Your task to perform on an android device: What's the weather going to be this weekend? Image 0: 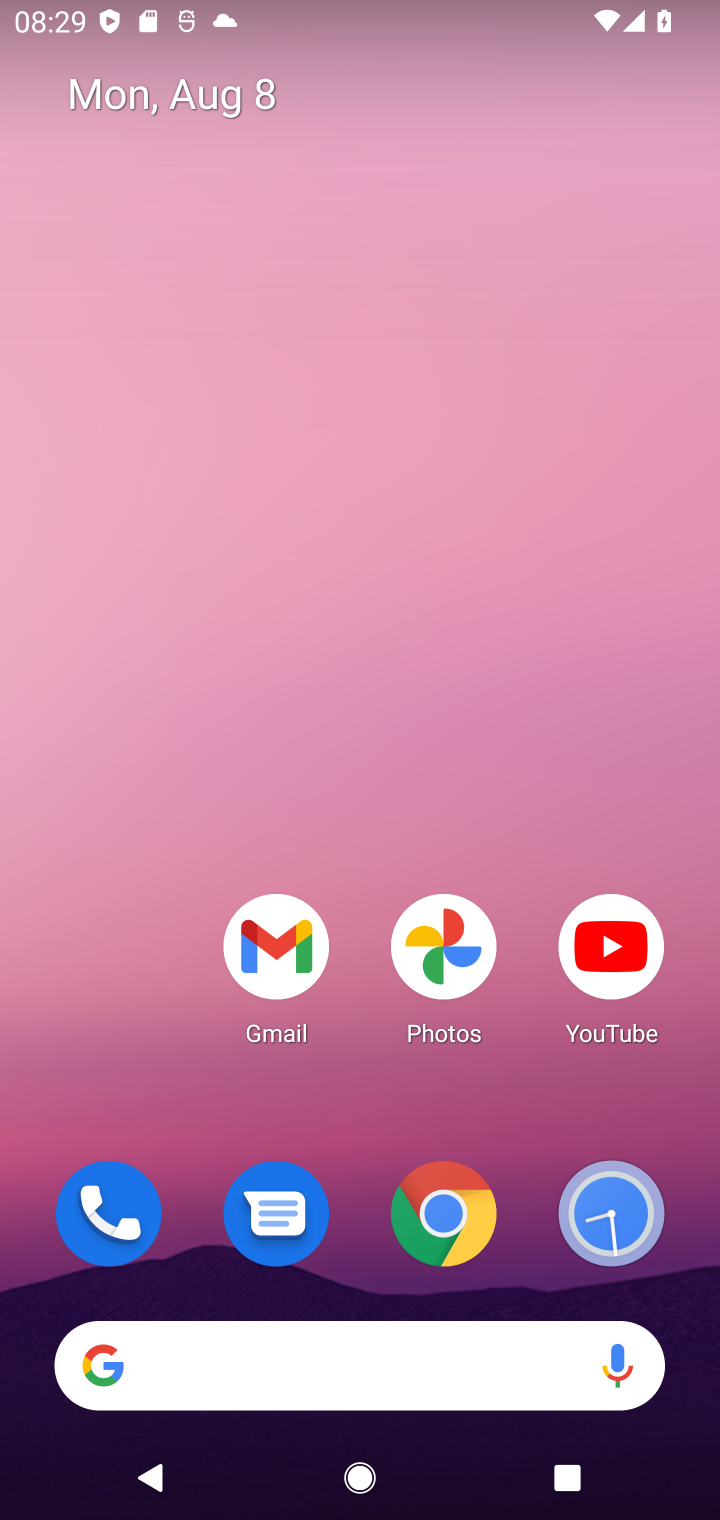
Step 0: drag from (318, 988) to (244, 265)
Your task to perform on an android device: What's the weather going to be this weekend? Image 1: 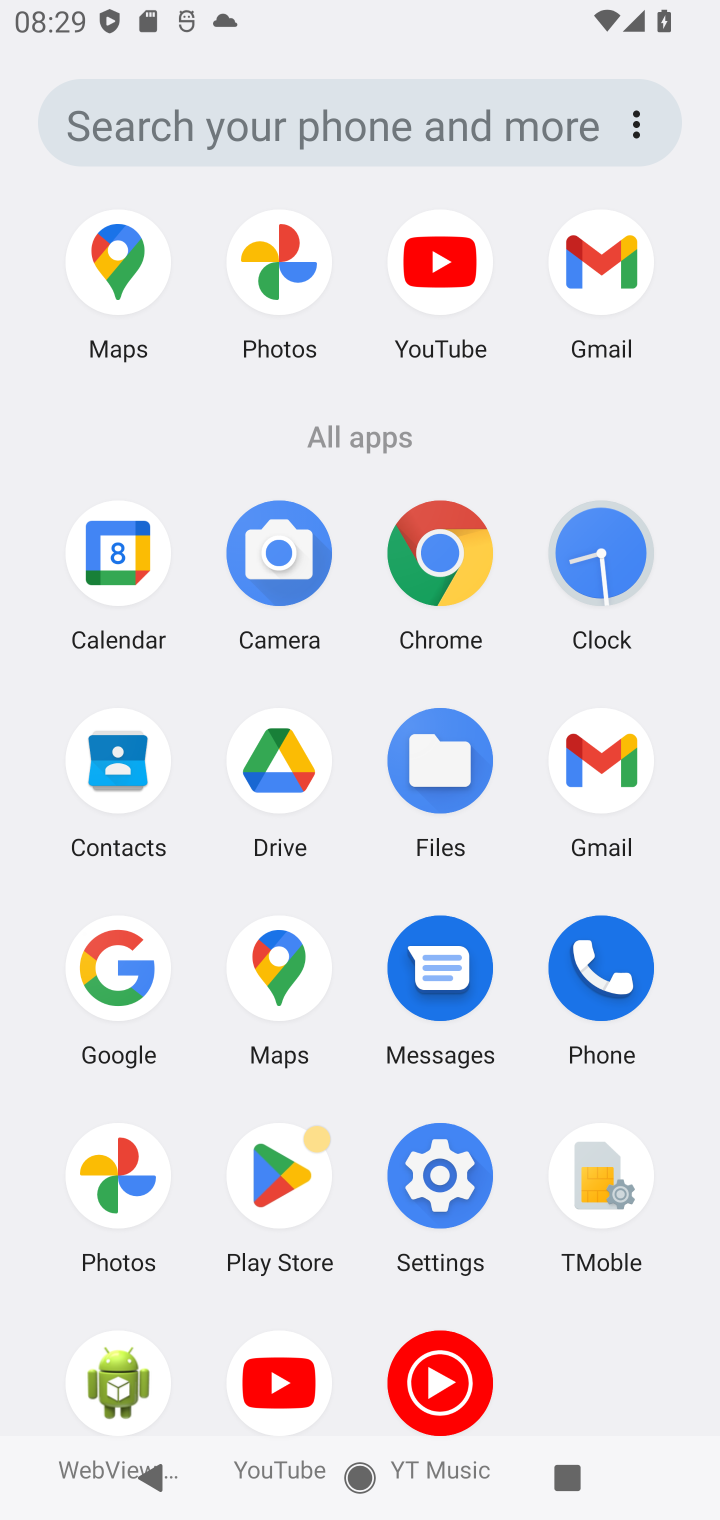
Step 1: click (464, 596)
Your task to perform on an android device: What's the weather going to be this weekend? Image 2: 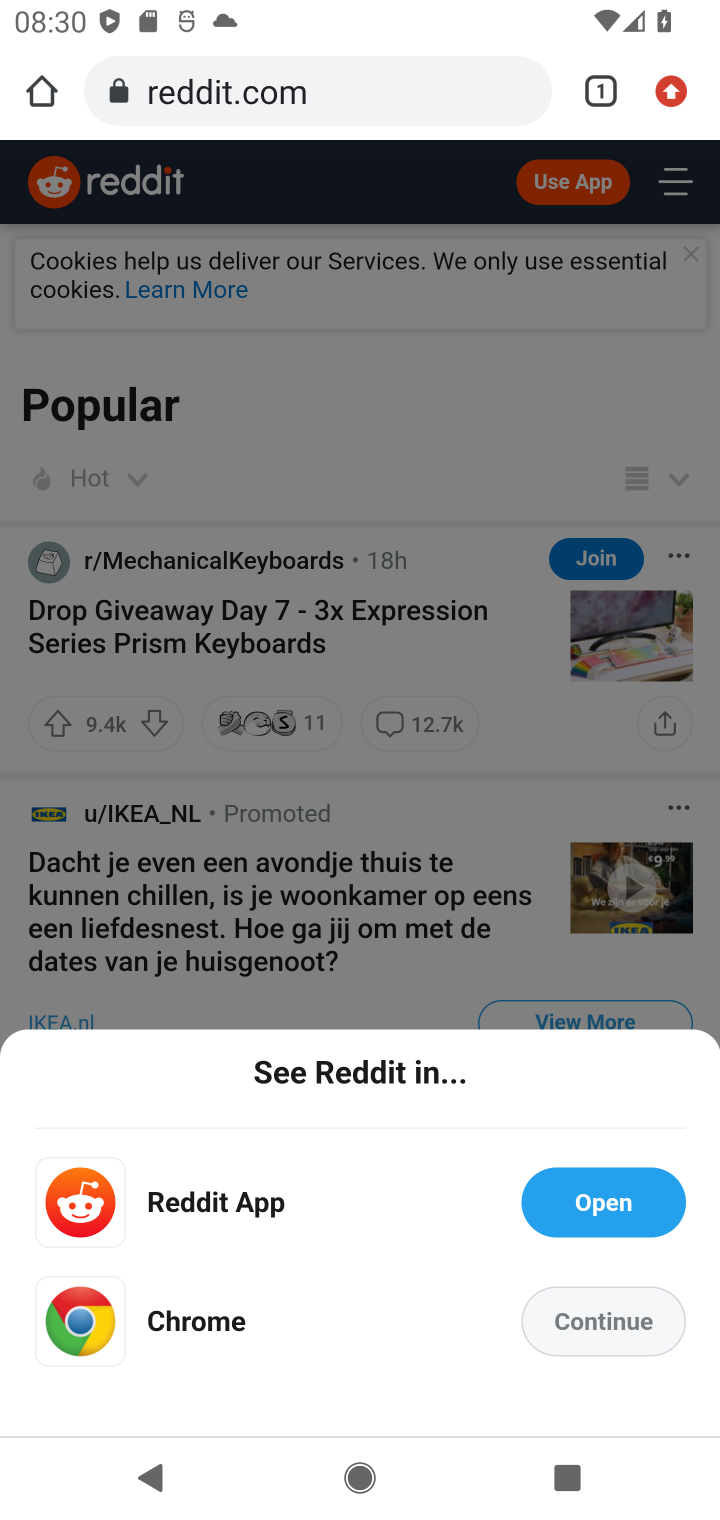
Step 2: click (454, 583)
Your task to perform on an android device: What's the weather going to be this weekend? Image 3: 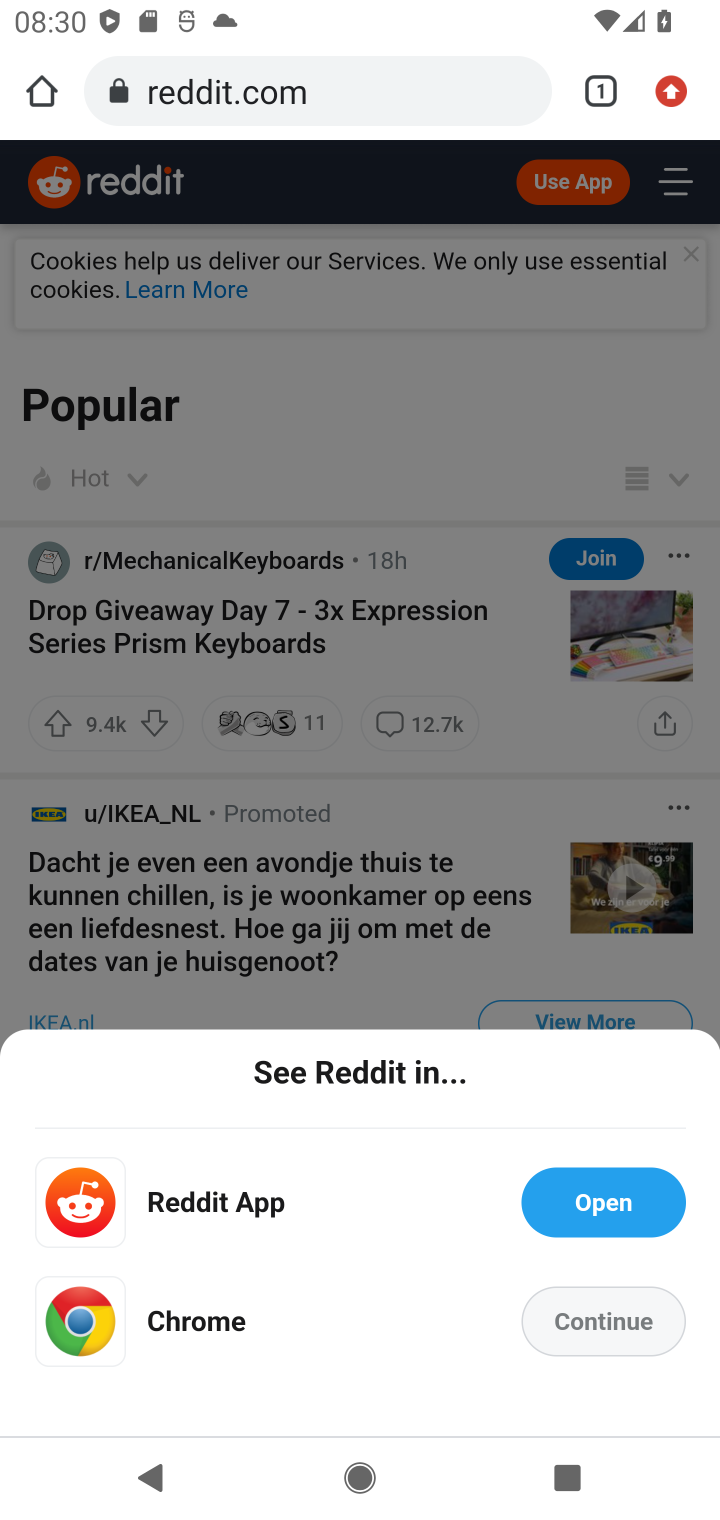
Step 3: click (605, 95)
Your task to perform on an android device: What's the weather going to be this weekend? Image 4: 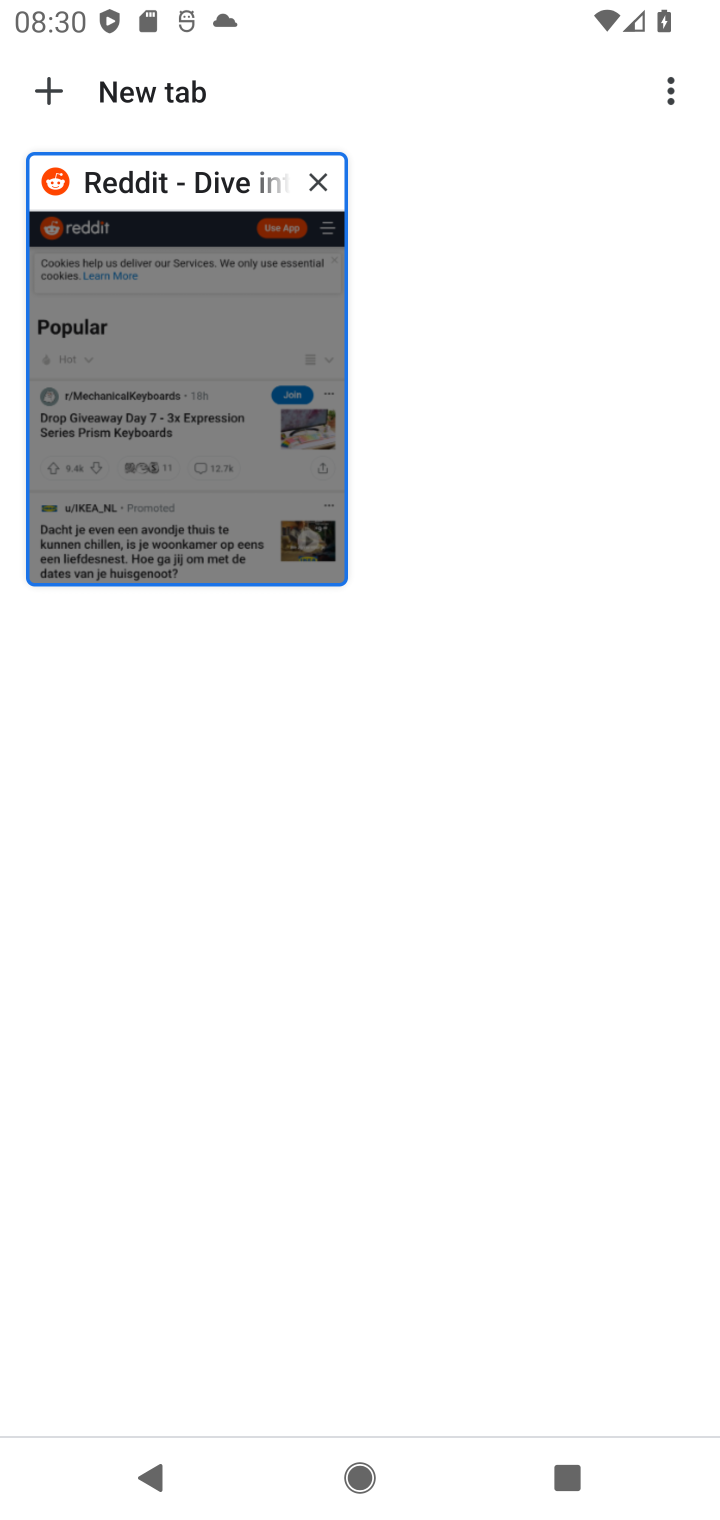
Step 4: click (66, 82)
Your task to perform on an android device: What's the weather going to be this weekend? Image 5: 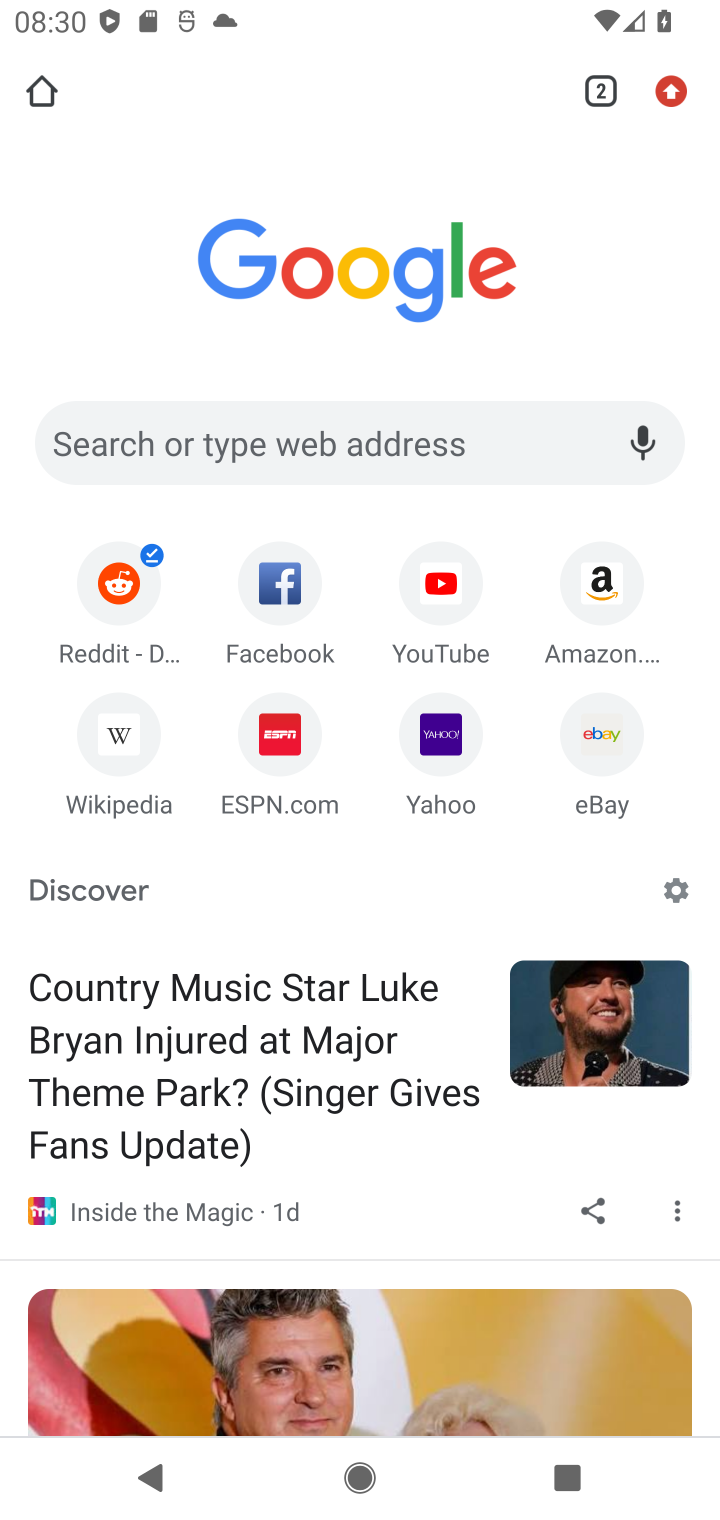
Step 5: click (330, 460)
Your task to perform on an android device: What's the weather going to be this weekend? Image 6: 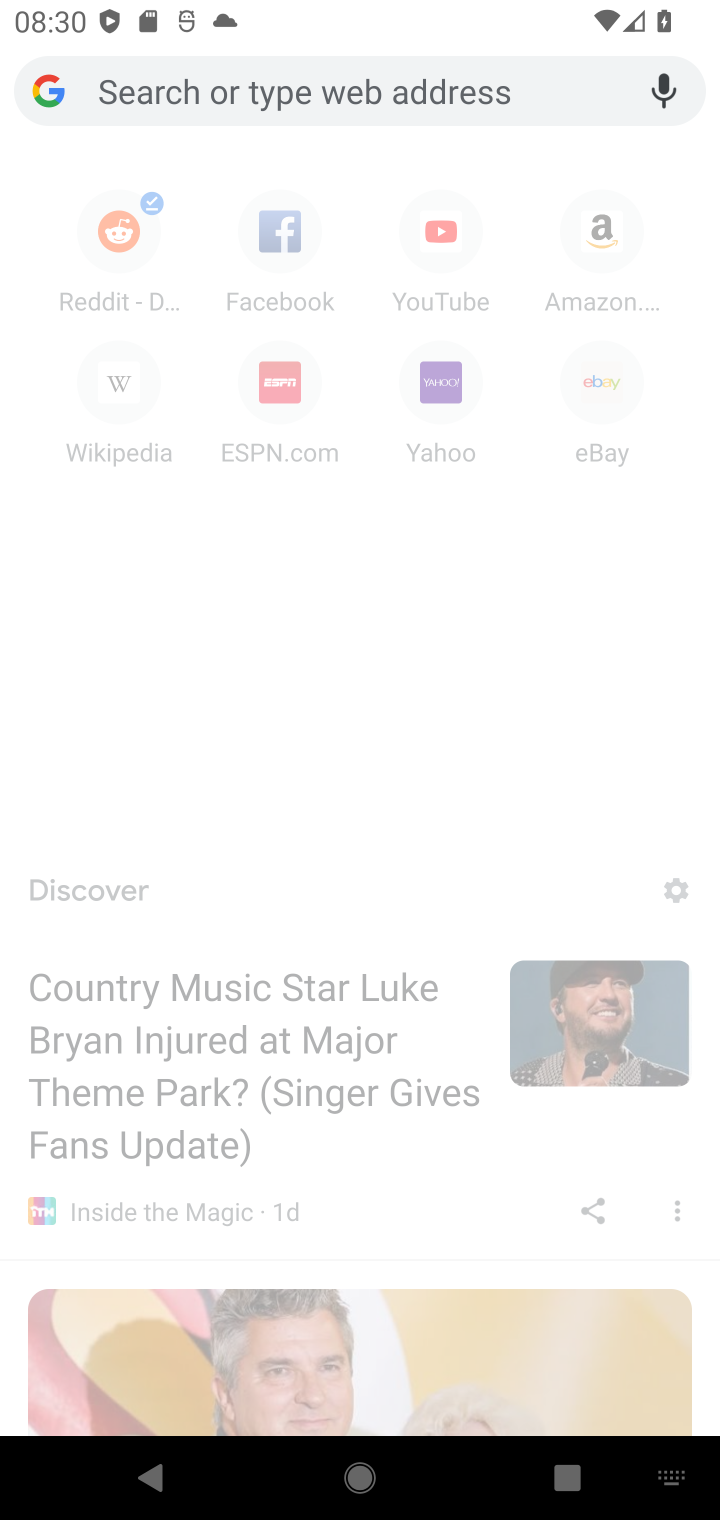
Step 6: click (341, 90)
Your task to perform on an android device: What's the weather going to be this weekend? Image 7: 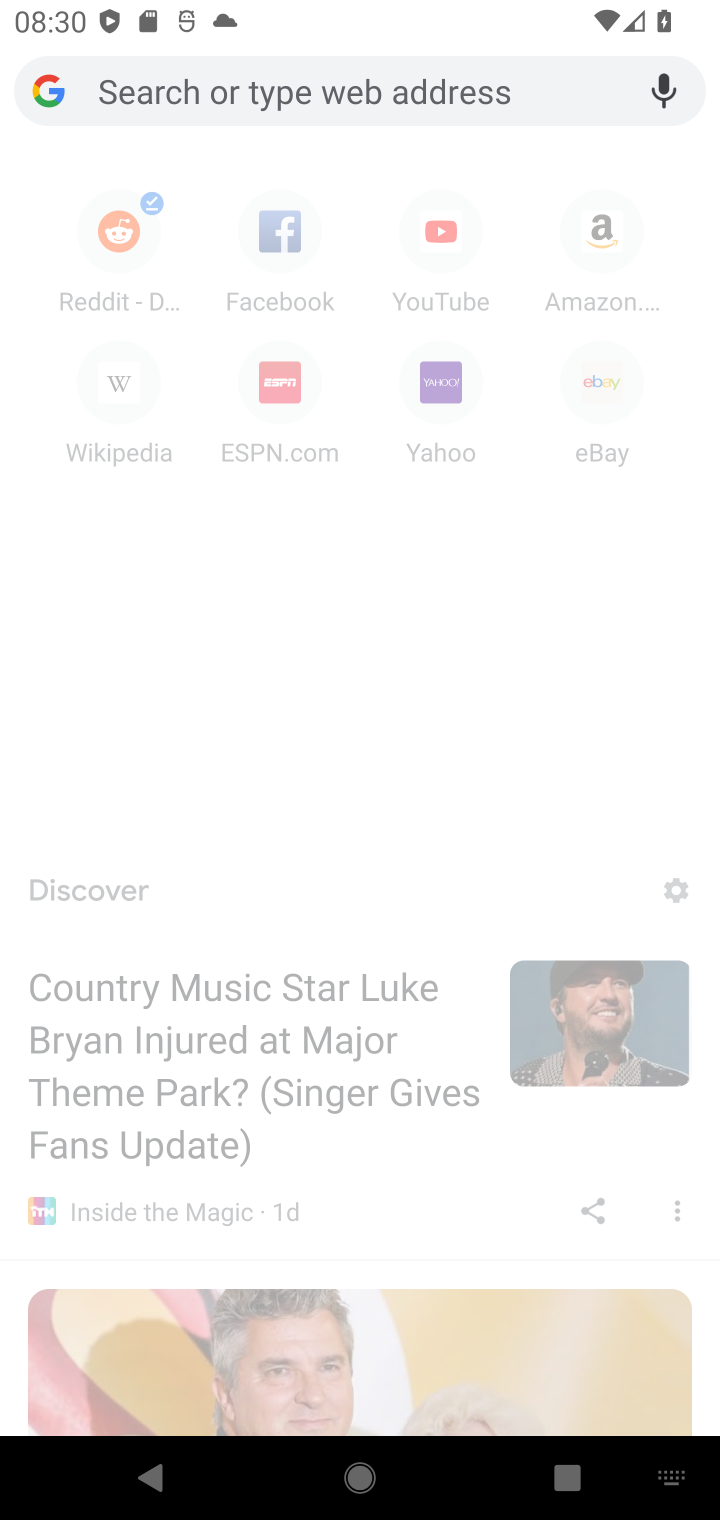
Step 7: type "weather"
Your task to perform on an android device: What's the weather going to be this weekend? Image 8: 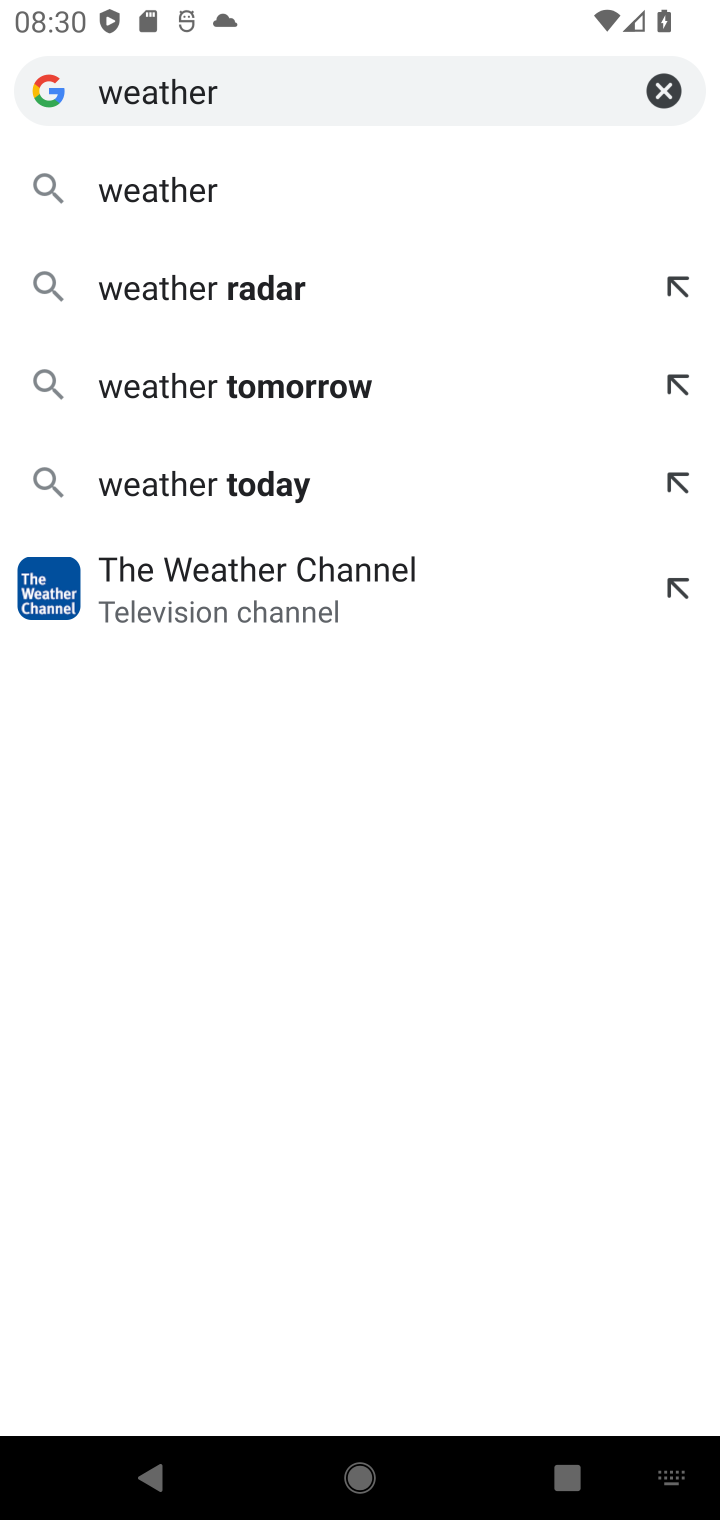
Step 8: click (321, 199)
Your task to perform on an android device: What's the weather going to be this weekend? Image 9: 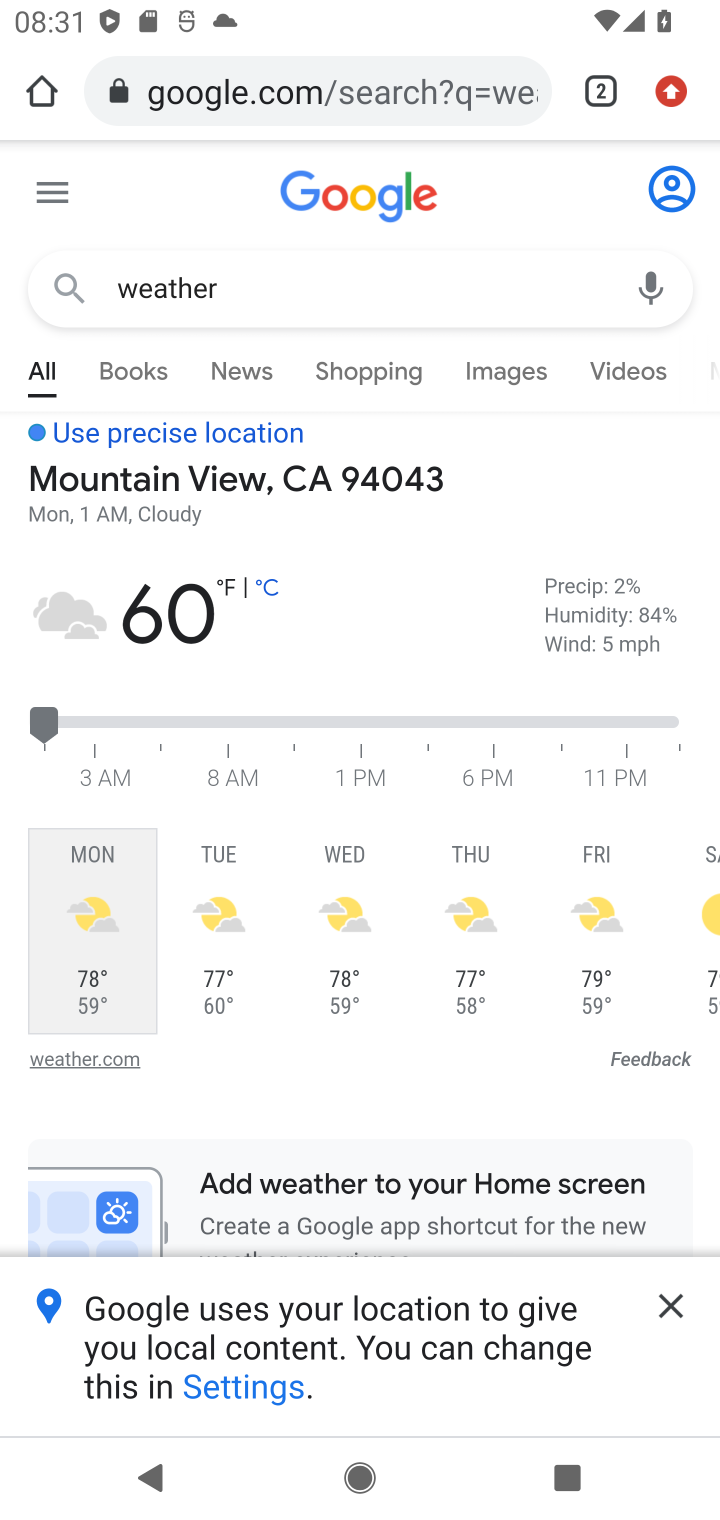
Step 9: task complete